Your task to perform on an android device: Clear the cart on costco.com. Add lenovo thinkpad to the cart on costco.com, then select checkout. Image 0: 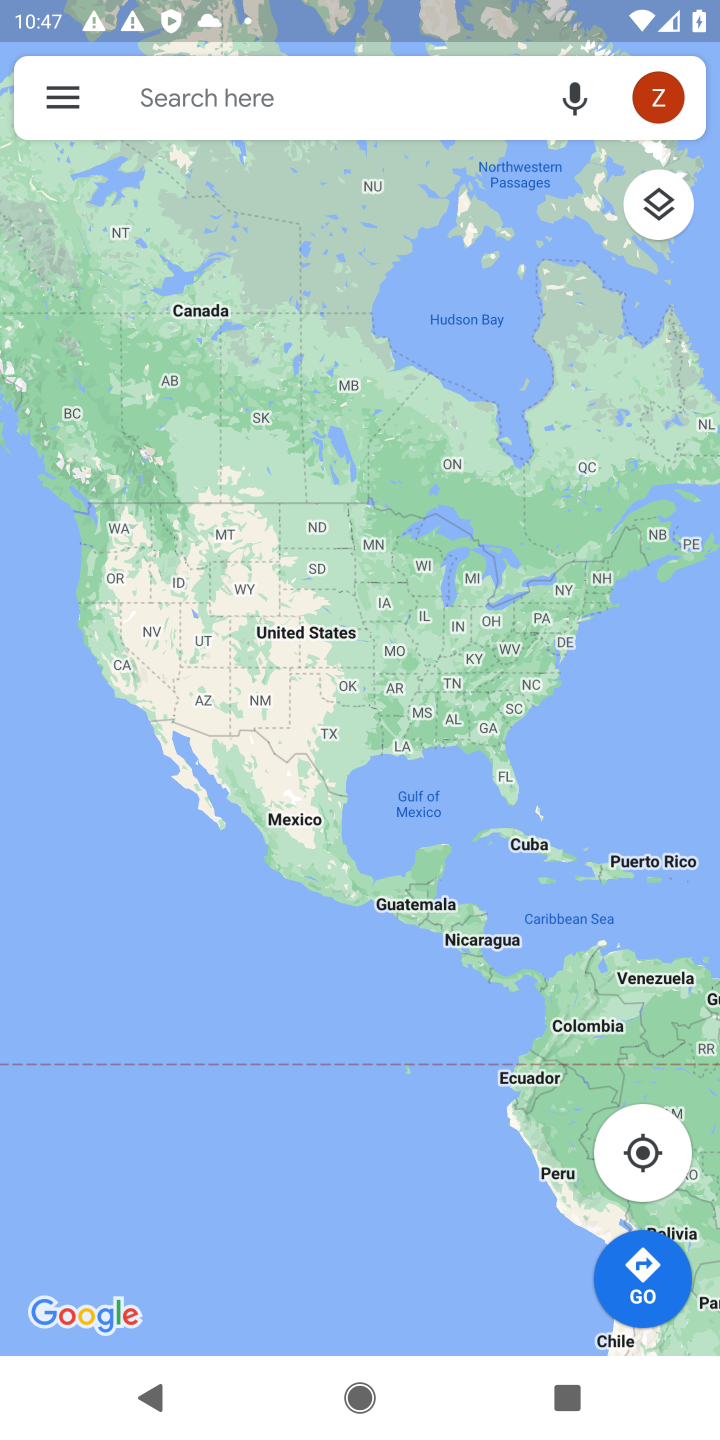
Step 0: press home button
Your task to perform on an android device: Clear the cart on costco.com. Add lenovo thinkpad to the cart on costco.com, then select checkout. Image 1: 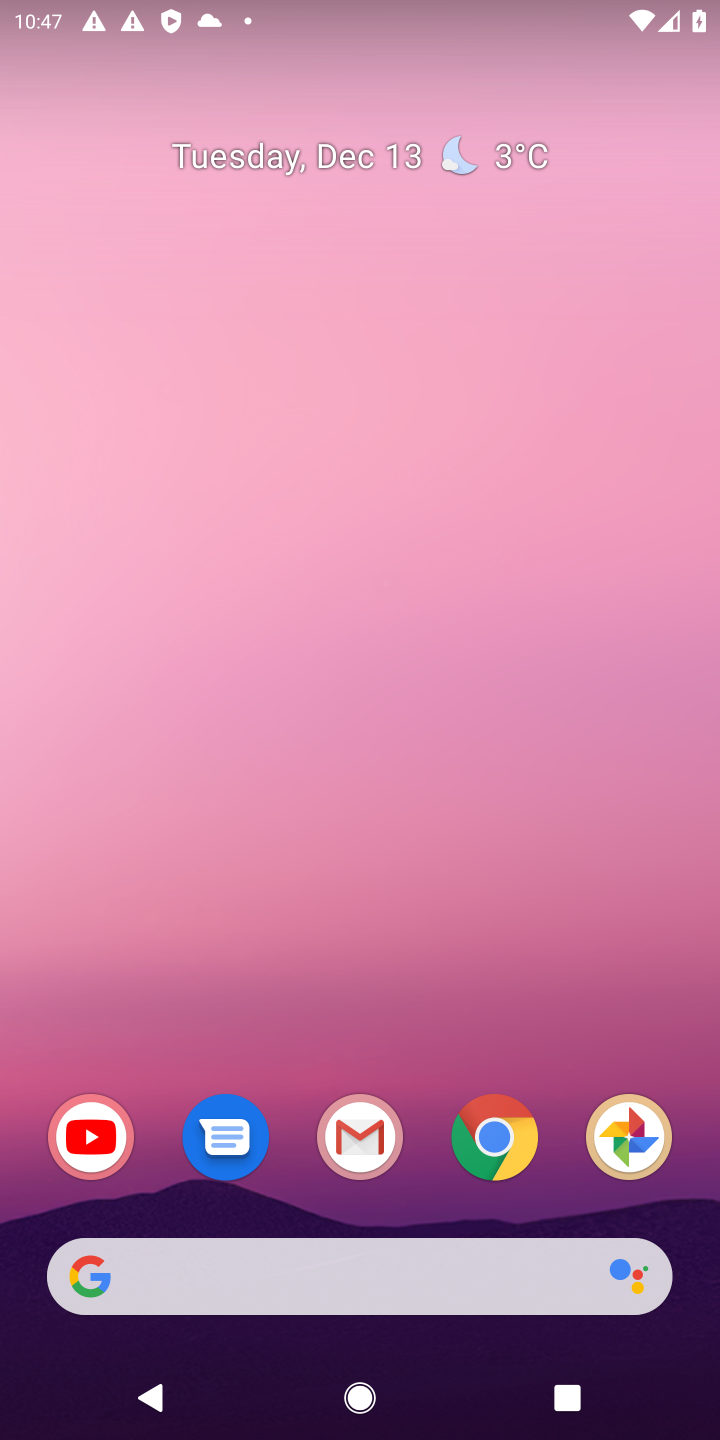
Step 1: click (489, 1120)
Your task to perform on an android device: Clear the cart on costco.com. Add lenovo thinkpad to the cart on costco.com, then select checkout. Image 2: 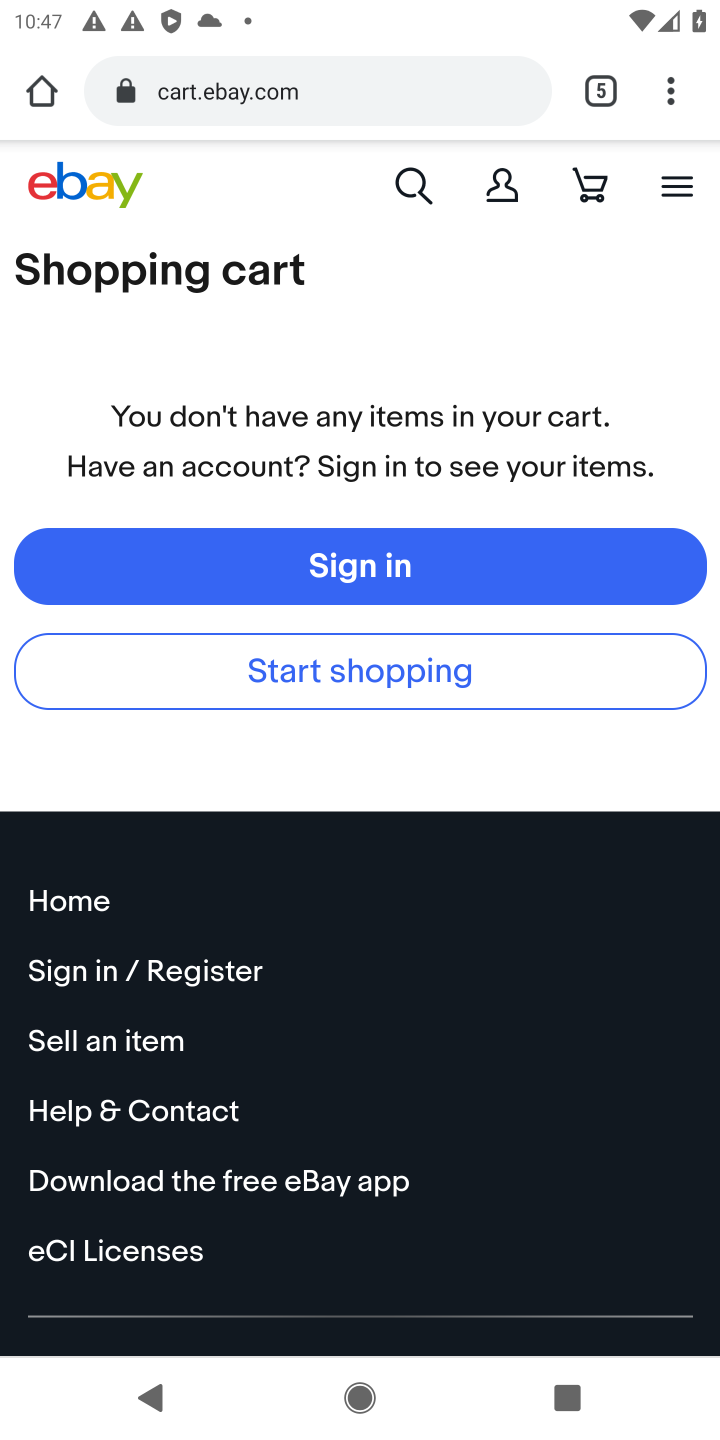
Step 2: click (603, 93)
Your task to perform on an android device: Clear the cart on costco.com. Add lenovo thinkpad to the cart on costco.com, then select checkout. Image 3: 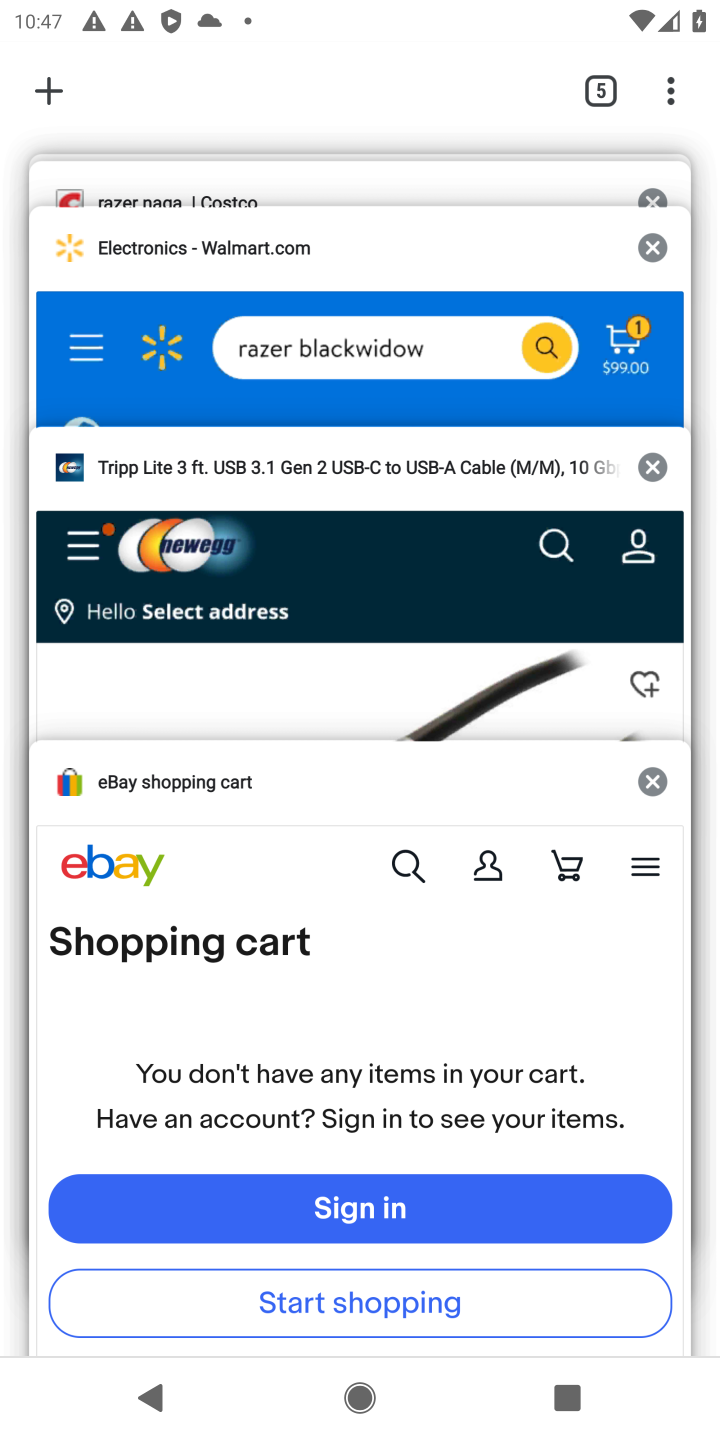
Step 3: click (178, 190)
Your task to perform on an android device: Clear the cart on costco.com. Add lenovo thinkpad to the cart on costco.com, then select checkout. Image 4: 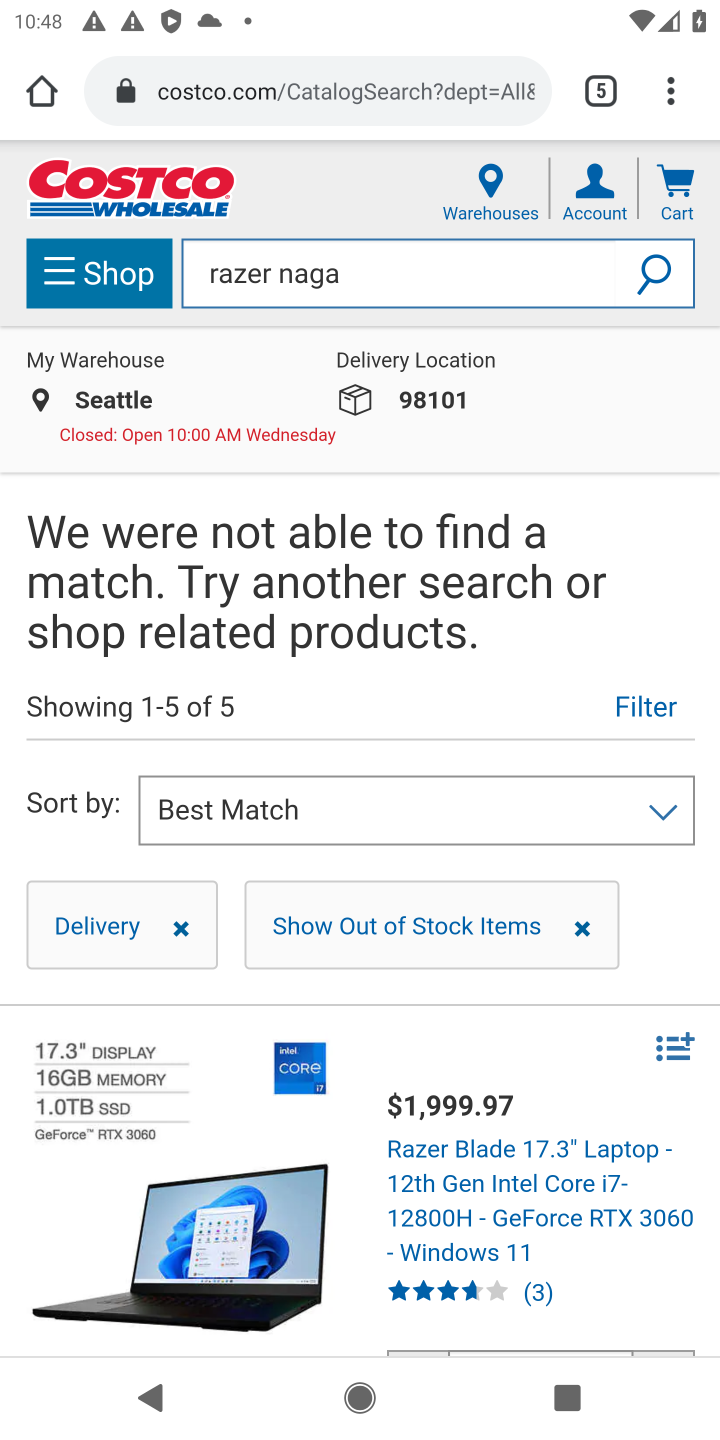
Step 4: click (460, 286)
Your task to perform on an android device: Clear the cart on costco.com. Add lenovo thinkpad to the cart on costco.com, then select checkout. Image 5: 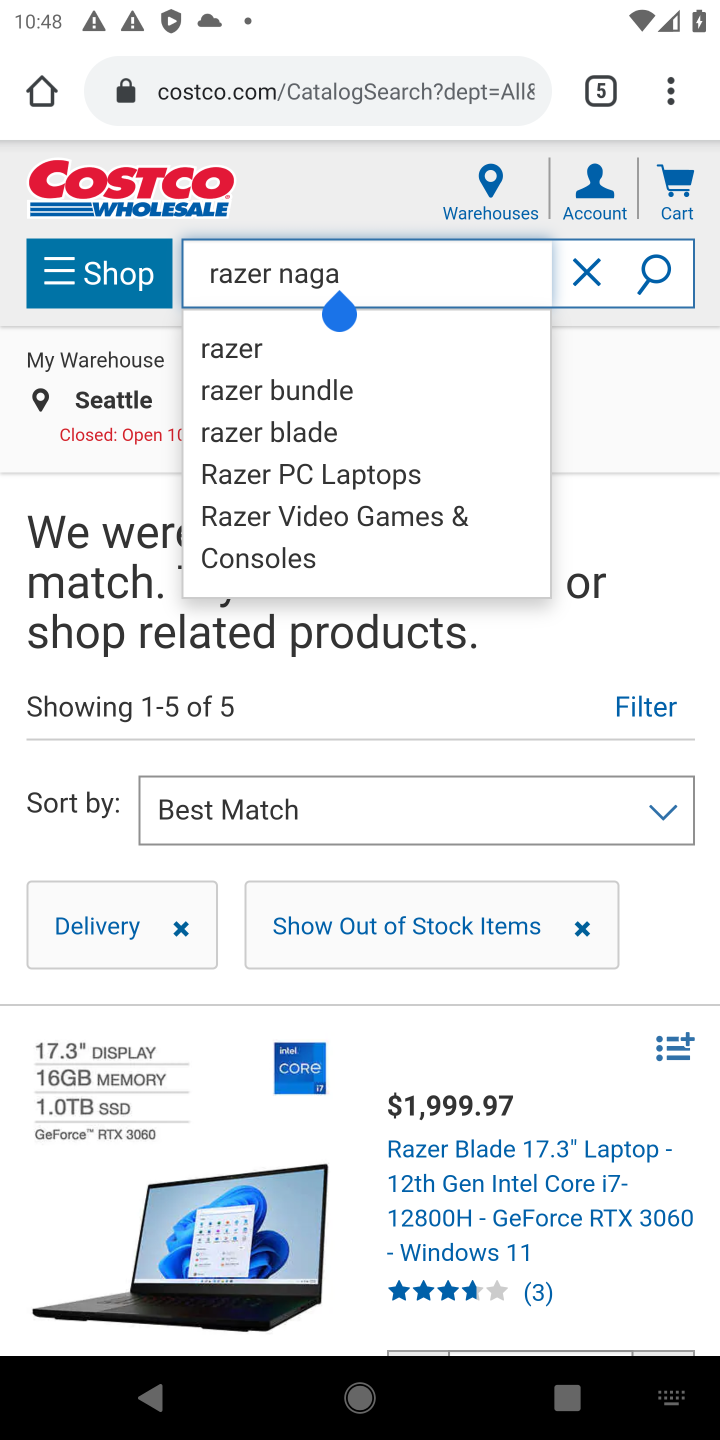
Step 5: click (589, 258)
Your task to perform on an android device: Clear the cart on costco.com. Add lenovo thinkpad to the cart on costco.com, then select checkout. Image 6: 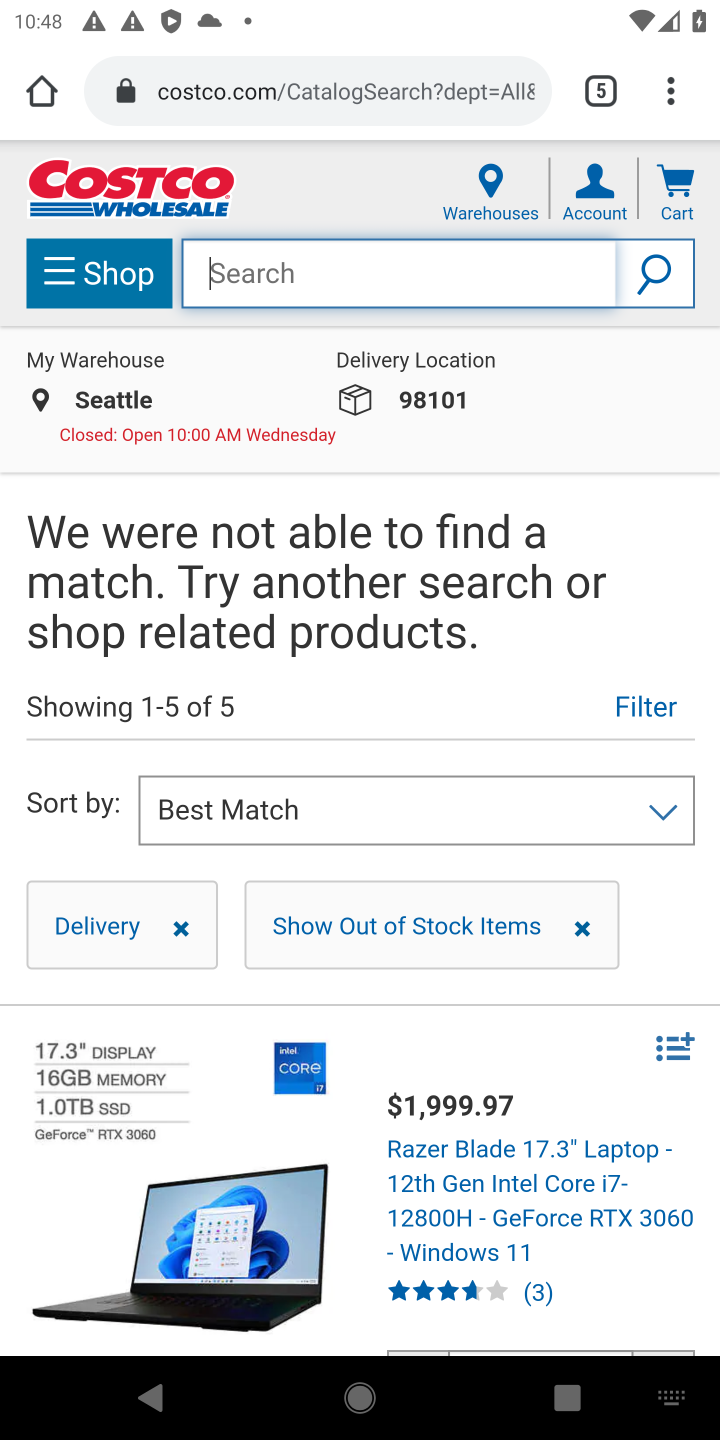
Step 6: type "lenovo thinkpad"
Your task to perform on an android device: Clear the cart on costco.com. Add lenovo thinkpad to the cart on costco.com, then select checkout. Image 7: 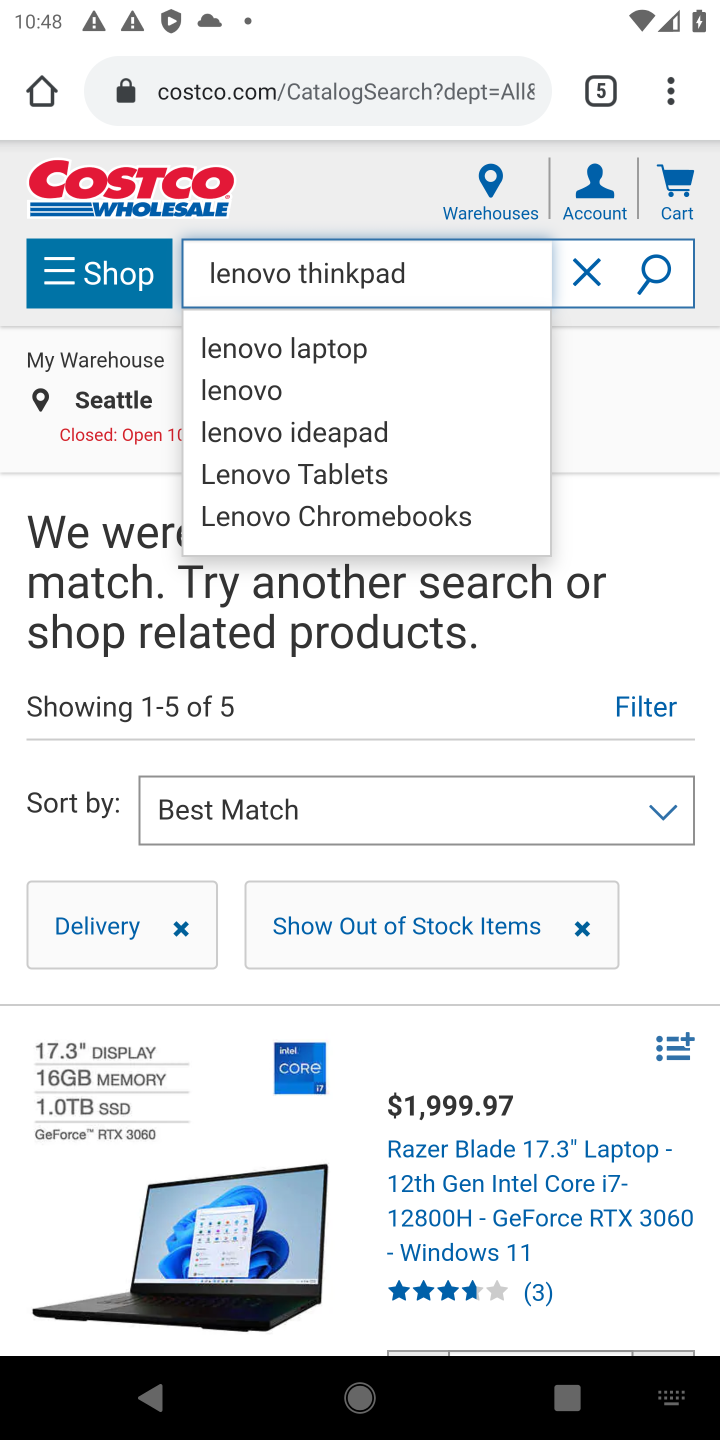
Step 7: click (644, 279)
Your task to perform on an android device: Clear the cart on costco.com. Add lenovo thinkpad to the cart on costco.com, then select checkout. Image 8: 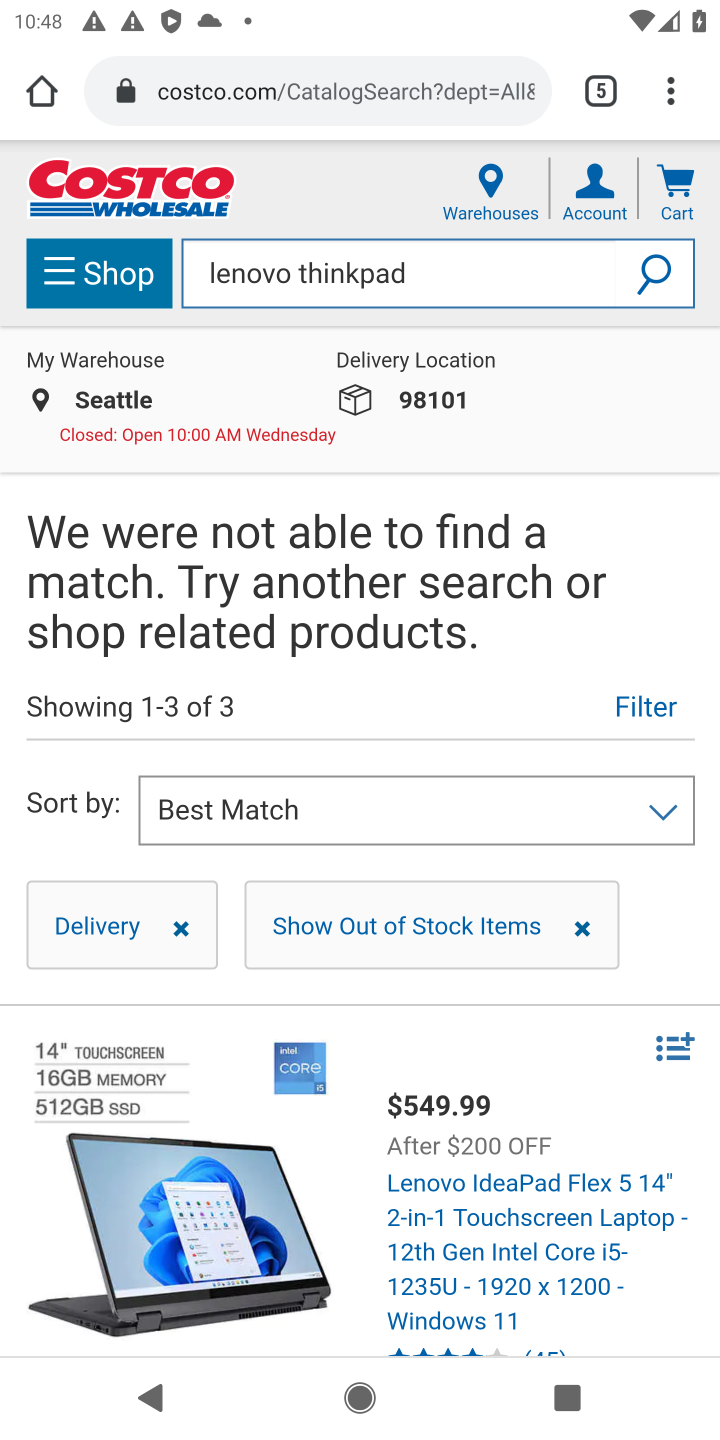
Step 8: task complete